Your task to perform on an android device: Search for vegetarian restaurants on Maps Image 0: 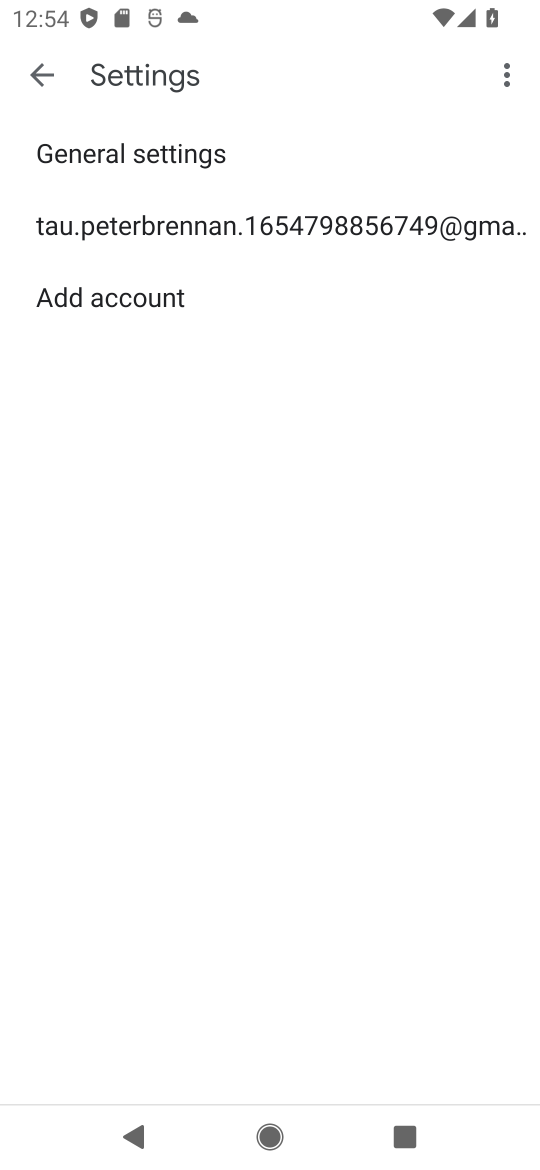
Step 0: press home button
Your task to perform on an android device: Search for vegetarian restaurants on Maps Image 1: 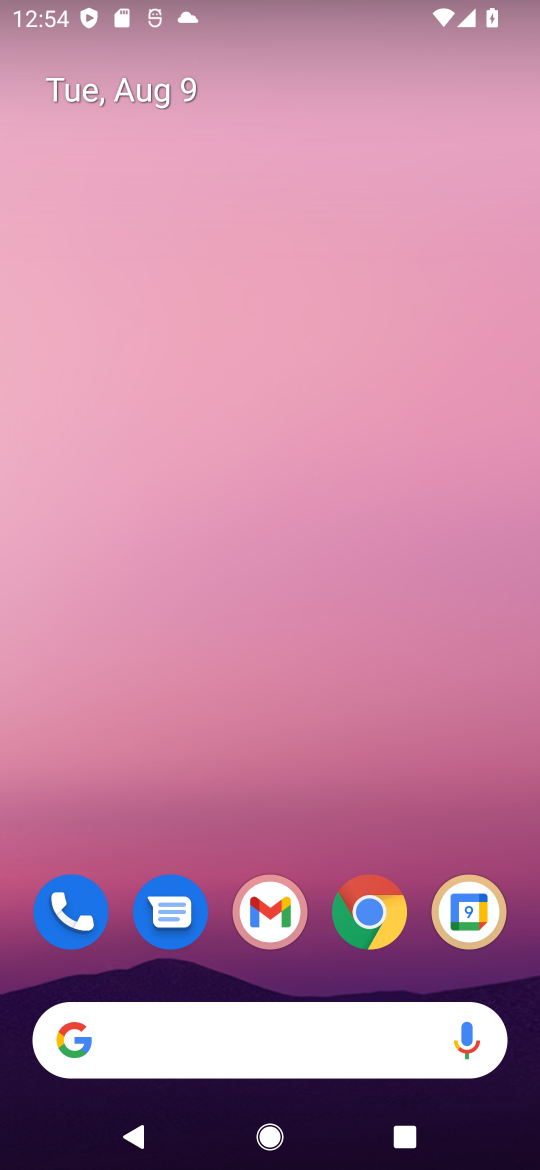
Step 1: drag from (196, 1007) to (342, 180)
Your task to perform on an android device: Search for vegetarian restaurants on Maps Image 2: 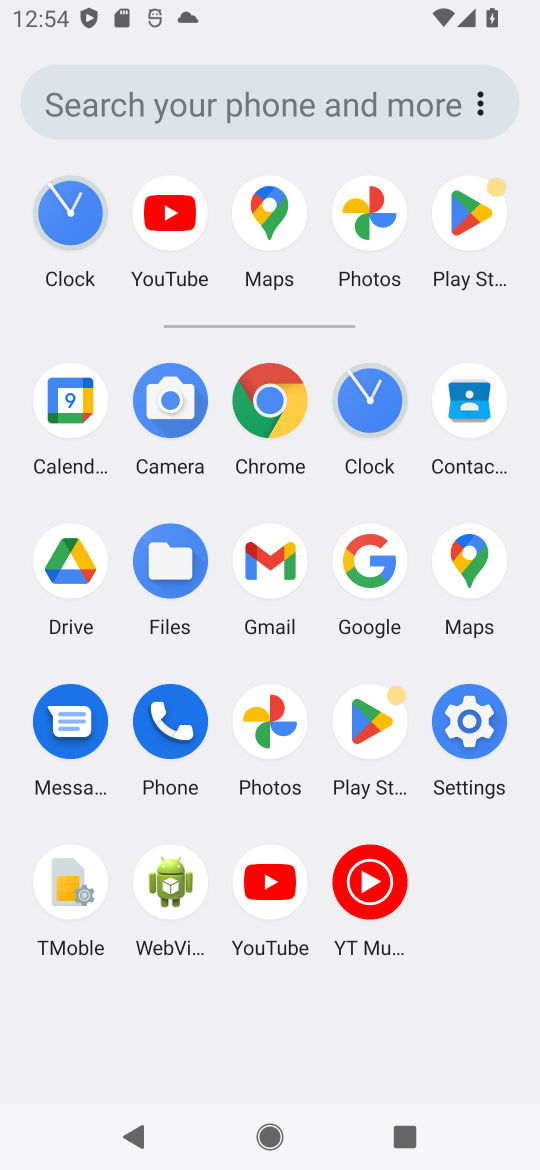
Step 2: click (458, 557)
Your task to perform on an android device: Search for vegetarian restaurants on Maps Image 3: 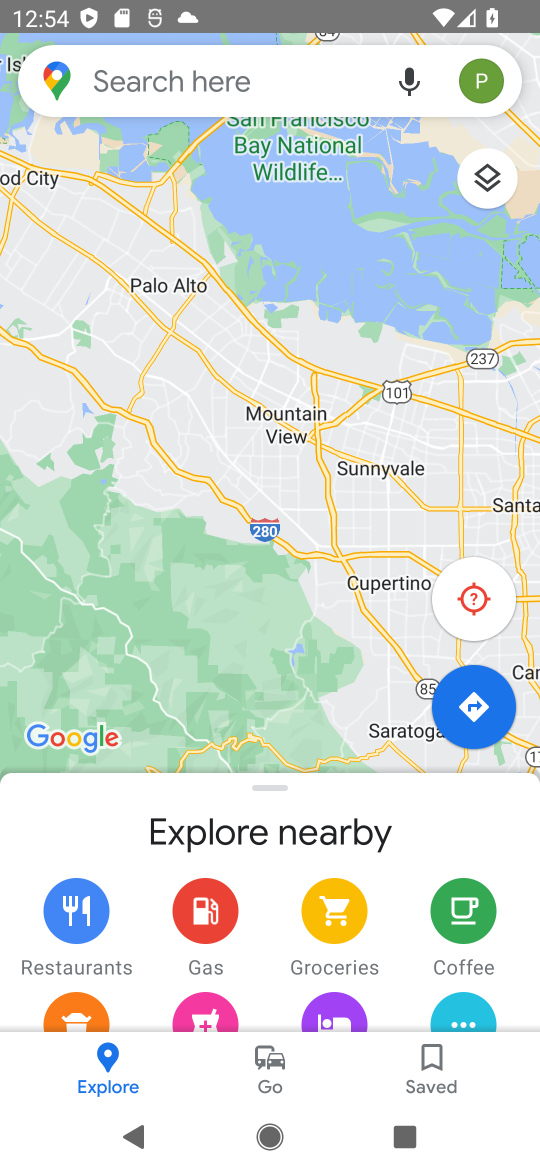
Step 3: click (278, 95)
Your task to perform on an android device: Search for vegetarian restaurants on Maps Image 4: 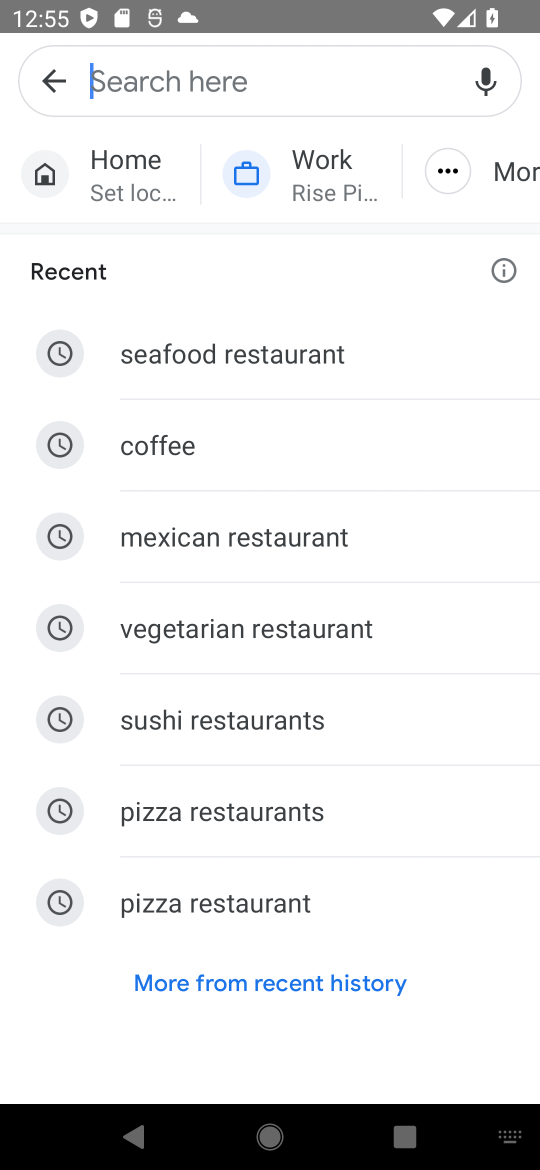
Step 4: click (160, 637)
Your task to perform on an android device: Search for vegetarian restaurants on Maps Image 5: 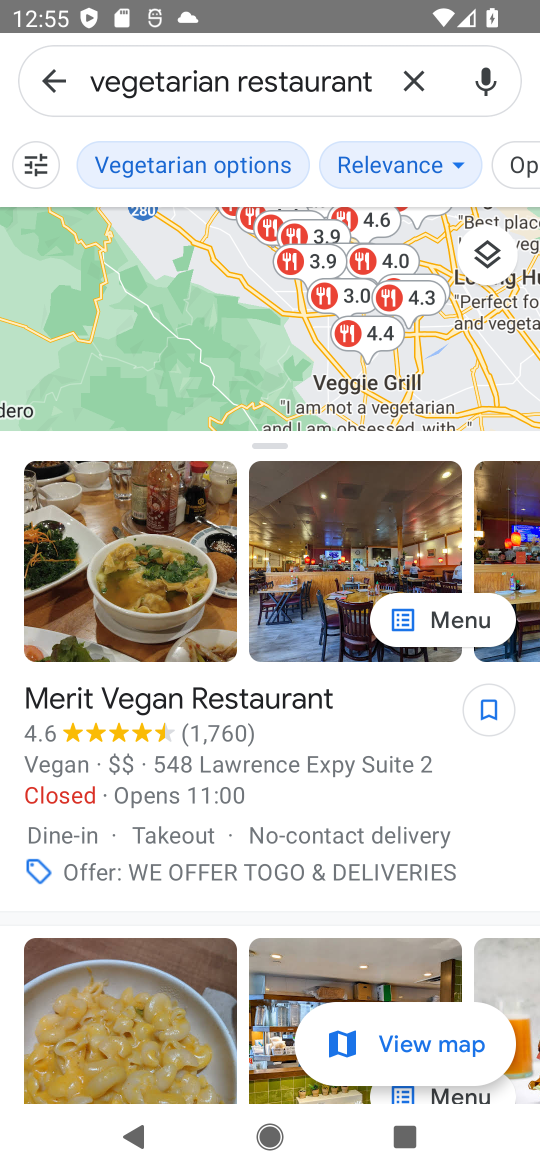
Step 5: task complete